Your task to perform on an android device: Open the Play Movies app and select the watchlist tab. Image 0: 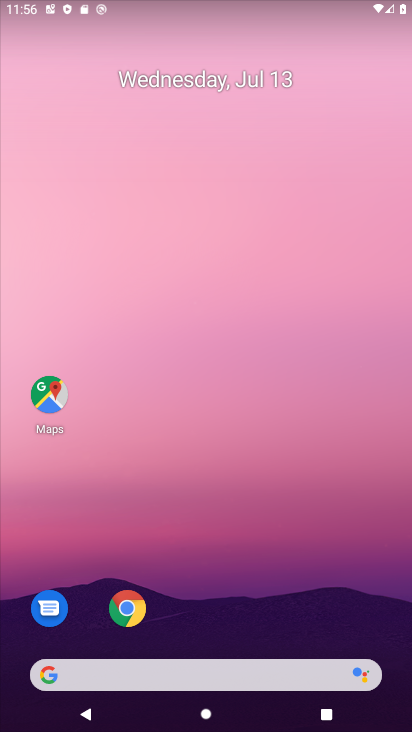
Step 0: drag from (141, 622) to (267, 70)
Your task to perform on an android device: Open the Play Movies app and select the watchlist tab. Image 1: 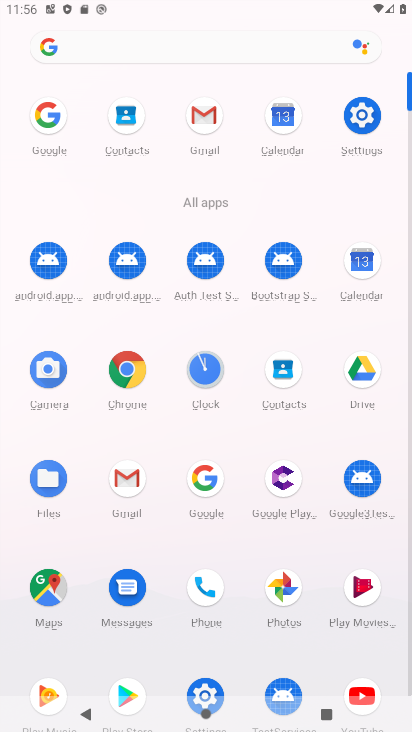
Step 1: click (362, 688)
Your task to perform on an android device: Open the Play Movies app and select the watchlist tab. Image 2: 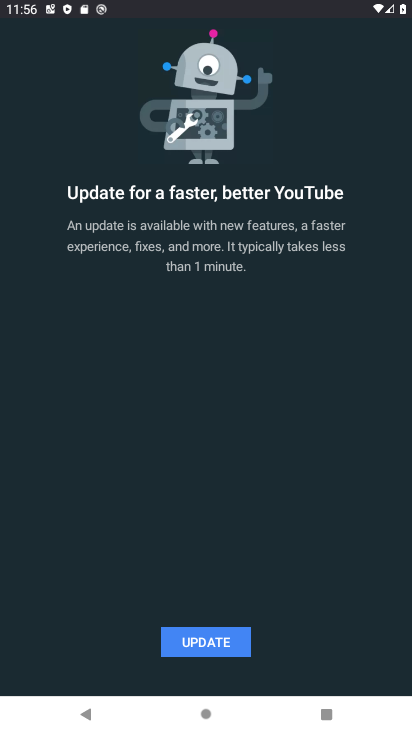
Step 2: press home button
Your task to perform on an android device: Open the Play Movies app and select the watchlist tab. Image 3: 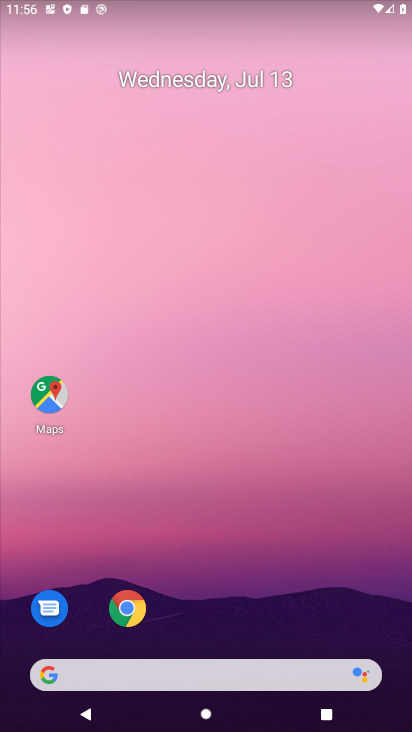
Step 3: drag from (256, 677) to (280, 123)
Your task to perform on an android device: Open the Play Movies app and select the watchlist tab. Image 4: 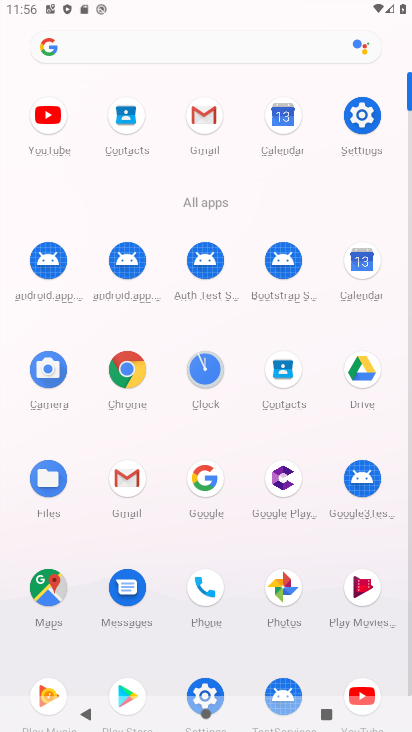
Step 4: click (365, 598)
Your task to perform on an android device: Open the Play Movies app and select the watchlist tab. Image 5: 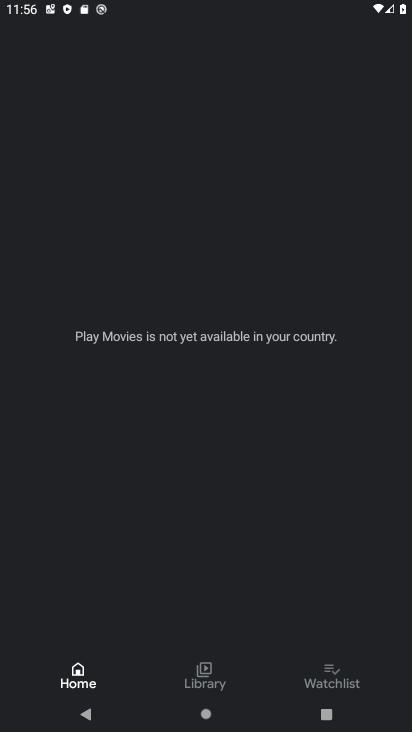
Step 5: click (319, 673)
Your task to perform on an android device: Open the Play Movies app and select the watchlist tab. Image 6: 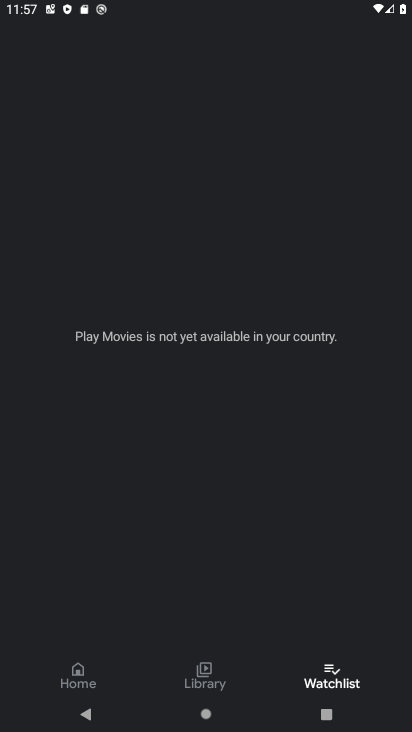
Step 6: task complete